Your task to perform on an android device: empty trash in the gmail app Image 0: 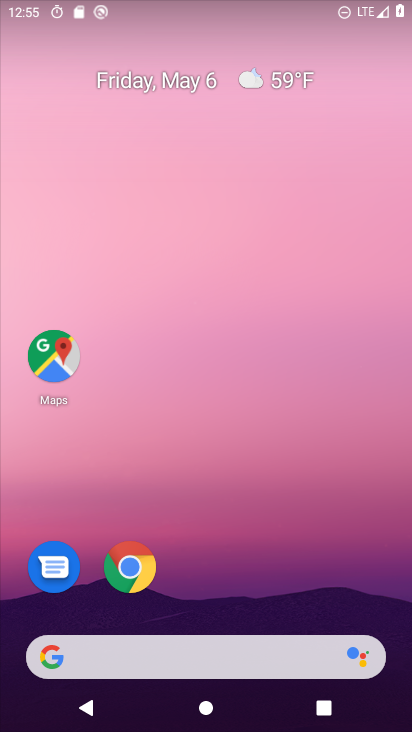
Step 0: drag from (327, 610) to (340, 45)
Your task to perform on an android device: empty trash in the gmail app Image 1: 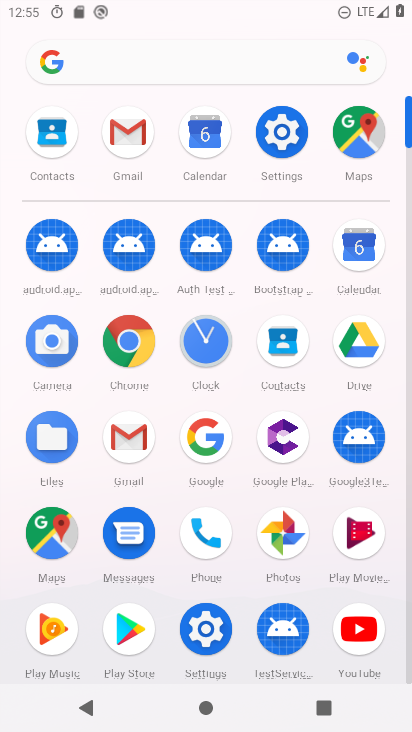
Step 1: click (123, 137)
Your task to perform on an android device: empty trash in the gmail app Image 2: 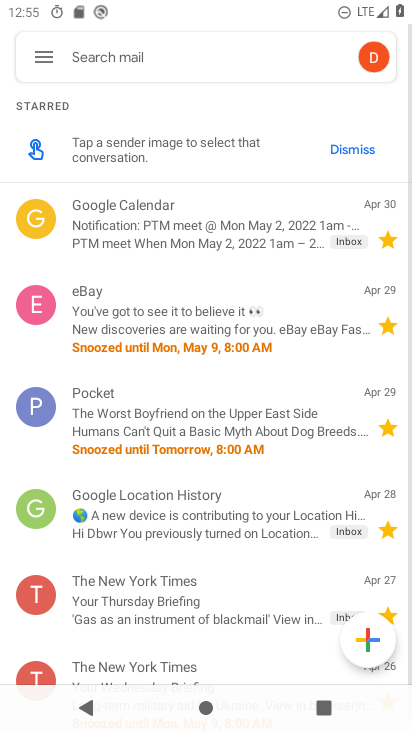
Step 2: click (51, 58)
Your task to perform on an android device: empty trash in the gmail app Image 3: 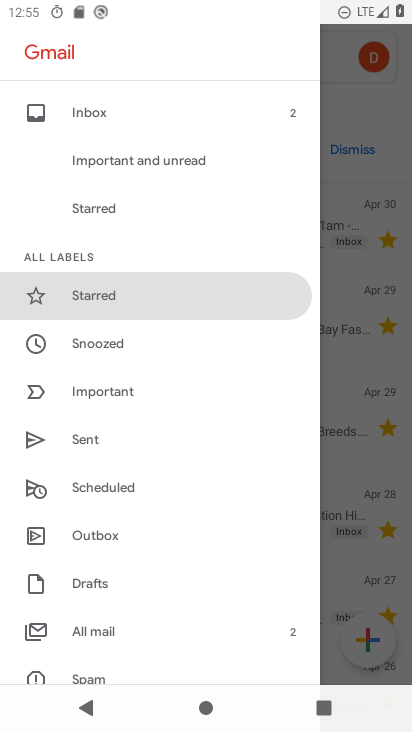
Step 3: drag from (155, 599) to (163, 330)
Your task to perform on an android device: empty trash in the gmail app Image 4: 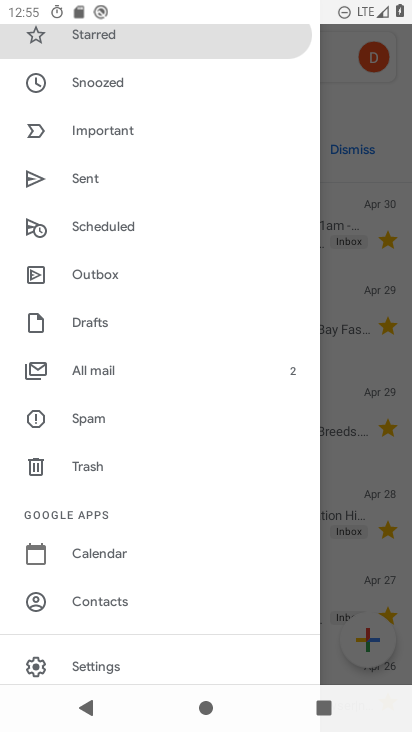
Step 4: click (99, 468)
Your task to perform on an android device: empty trash in the gmail app Image 5: 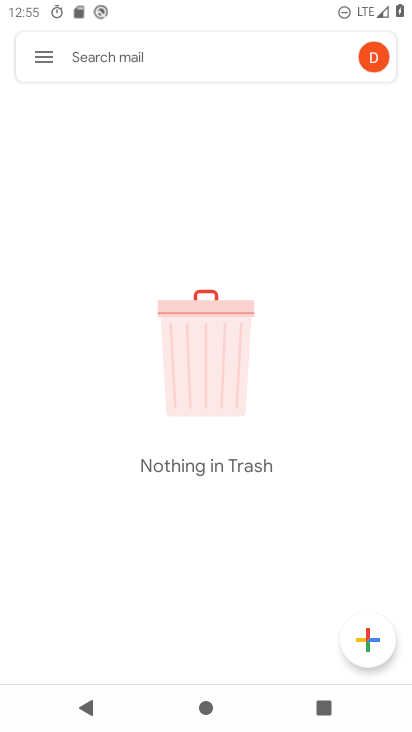
Step 5: task complete